Your task to perform on an android device: change notification settings in the gmail app Image 0: 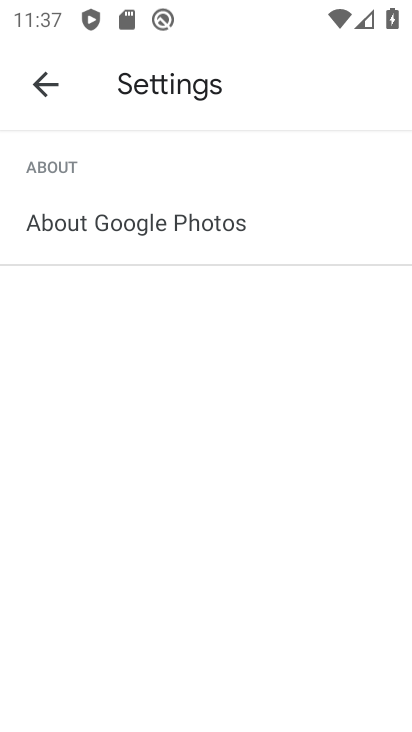
Step 0: press home button
Your task to perform on an android device: change notification settings in the gmail app Image 1: 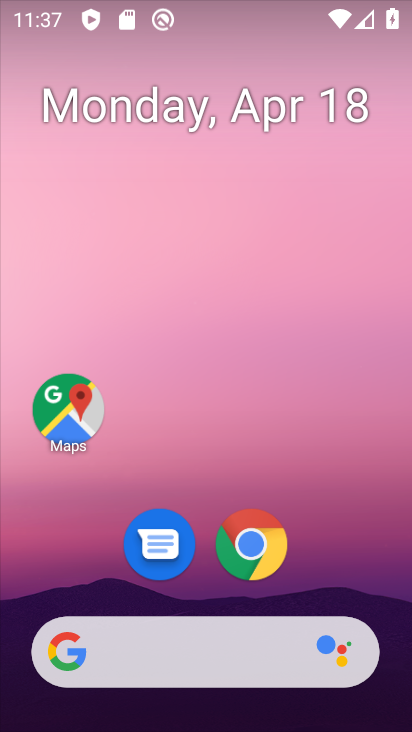
Step 1: drag from (357, 559) to (389, 78)
Your task to perform on an android device: change notification settings in the gmail app Image 2: 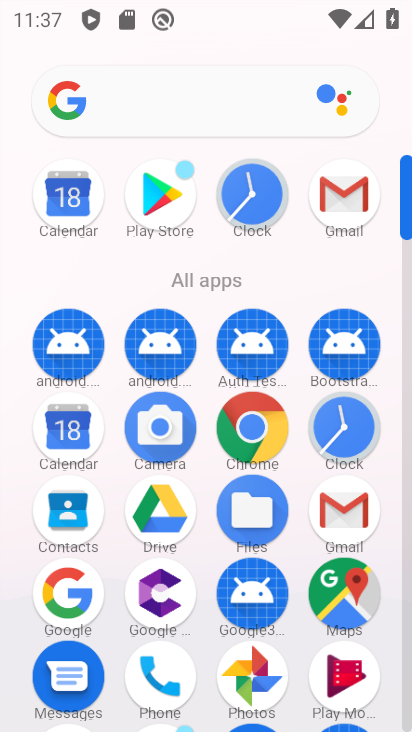
Step 2: click (343, 187)
Your task to perform on an android device: change notification settings in the gmail app Image 3: 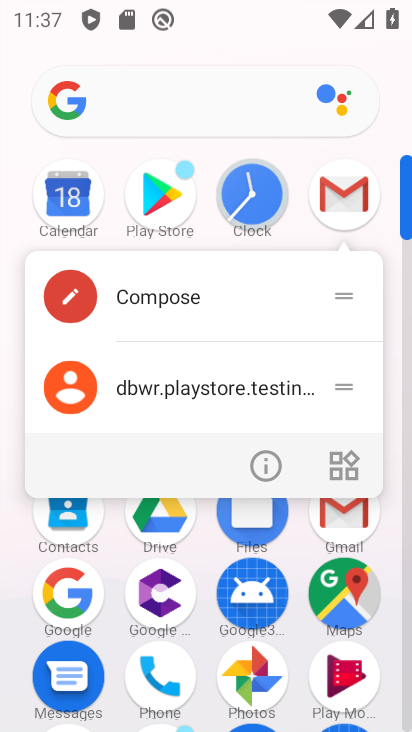
Step 3: click (344, 203)
Your task to perform on an android device: change notification settings in the gmail app Image 4: 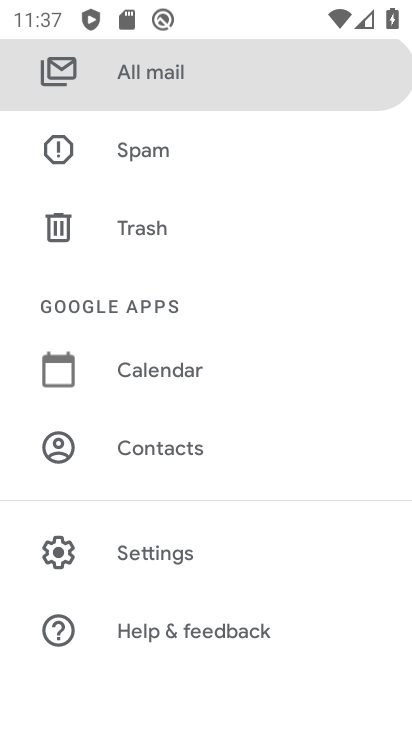
Step 4: click (140, 561)
Your task to perform on an android device: change notification settings in the gmail app Image 5: 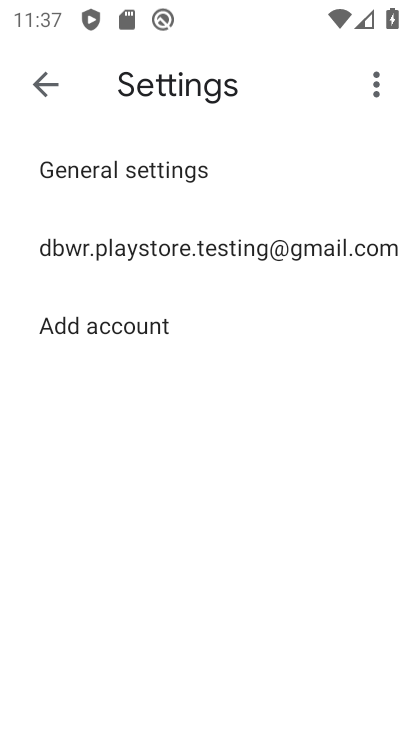
Step 5: click (80, 183)
Your task to perform on an android device: change notification settings in the gmail app Image 6: 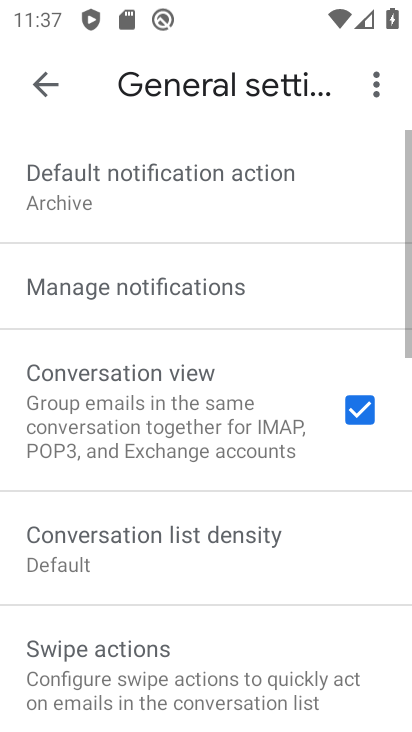
Step 6: click (90, 275)
Your task to perform on an android device: change notification settings in the gmail app Image 7: 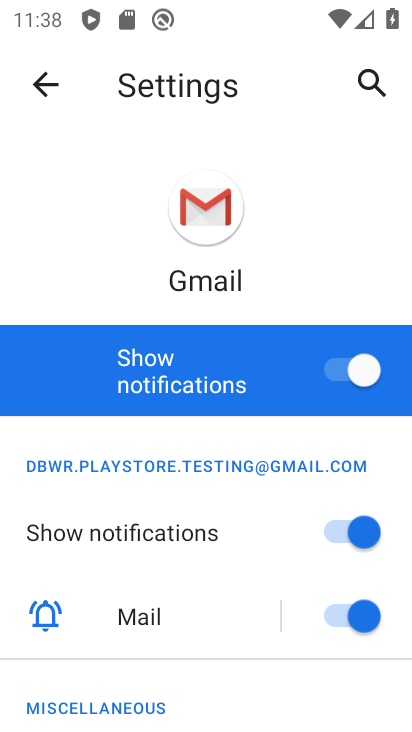
Step 7: click (376, 379)
Your task to perform on an android device: change notification settings in the gmail app Image 8: 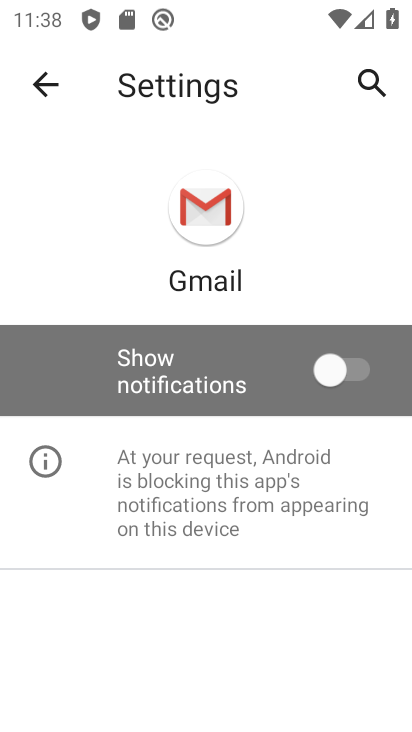
Step 8: task complete